Your task to perform on an android device: toggle notification dots Image 0: 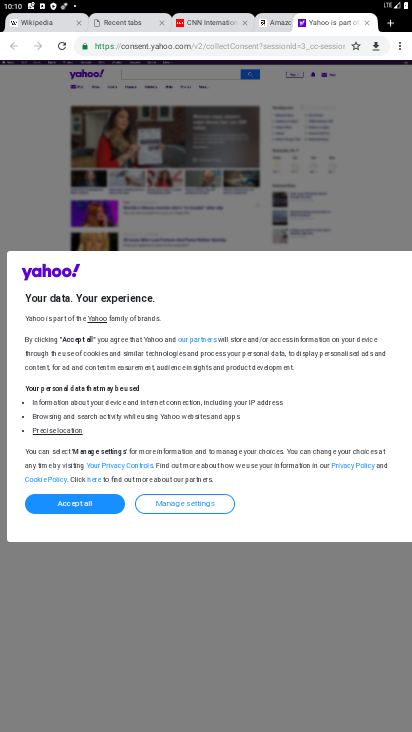
Step 0: press home button
Your task to perform on an android device: toggle notification dots Image 1: 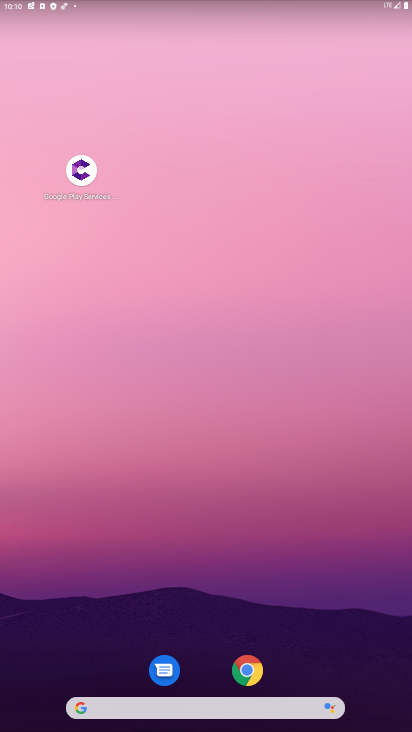
Step 1: drag from (180, 698) to (129, 50)
Your task to perform on an android device: toggle notification dots Image 2: 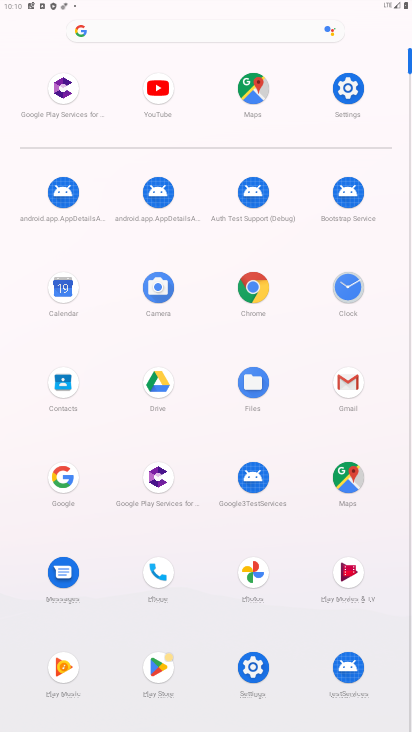
Step 2: click (359, 88)
Your task to perform on an android device: toggle notification dots Image 3: 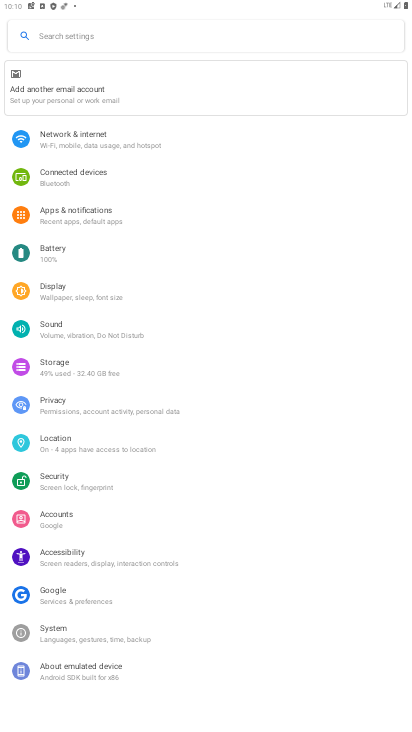
Step 3: click (137, 211)
Your task to perform on an android device: toggle notification dots Image 4: 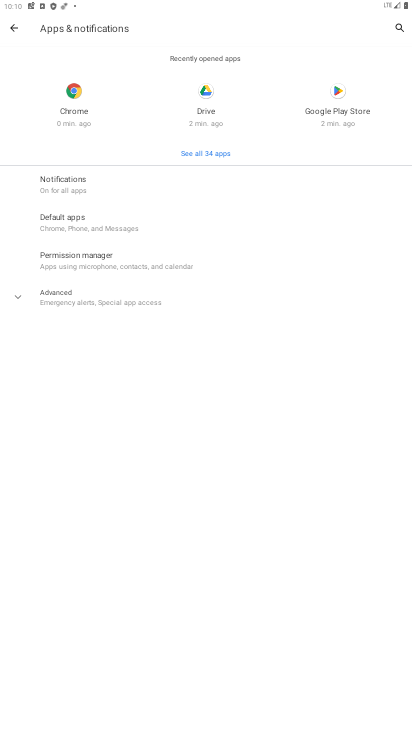
Step 4: click (152, 182)
Your task to perform on an android device: toggle notification dots Image 5: 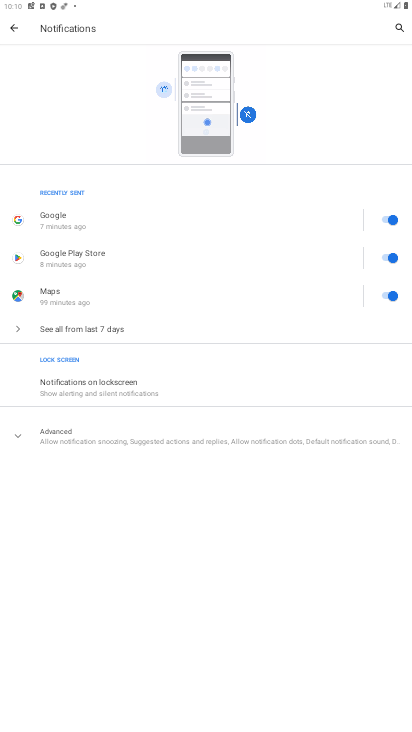
Step 5: click (189, 387)
Your task to perform on an android device: toggle notification dots Image 6: 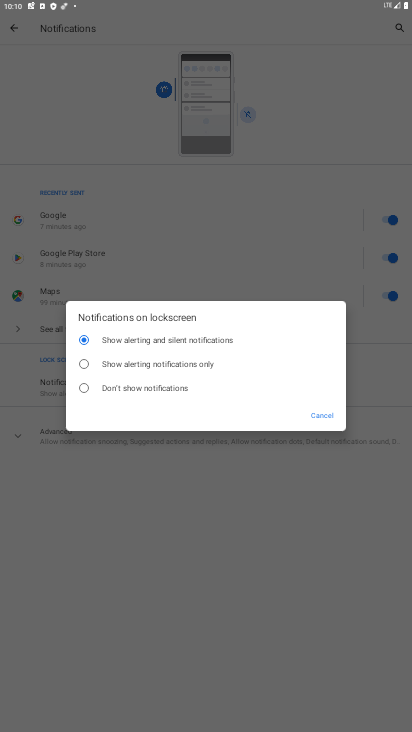
Step 6: click (367, 457)
Your task to perform on an android device: toggle notification dots Image 7: 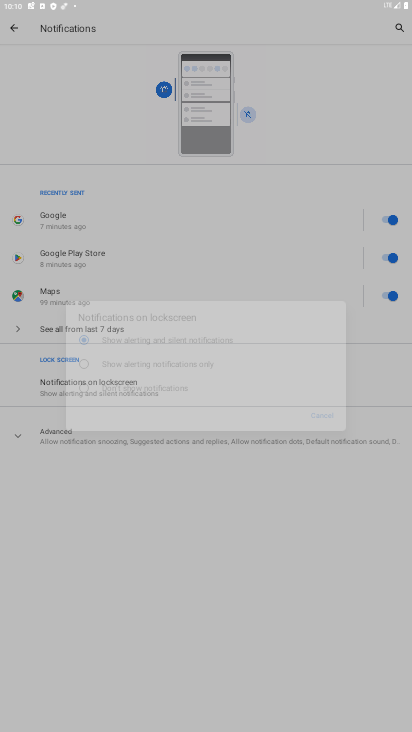
Step 7: click (362, 443)
Your task to perform on an android device: toggle notification dots Image 8: 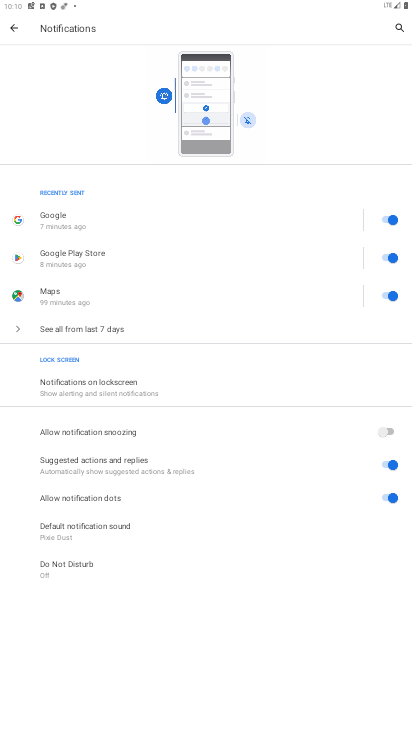
Step 8: click (394, 495)
Your task to perform on an android device: toggle notification dots Image 9: 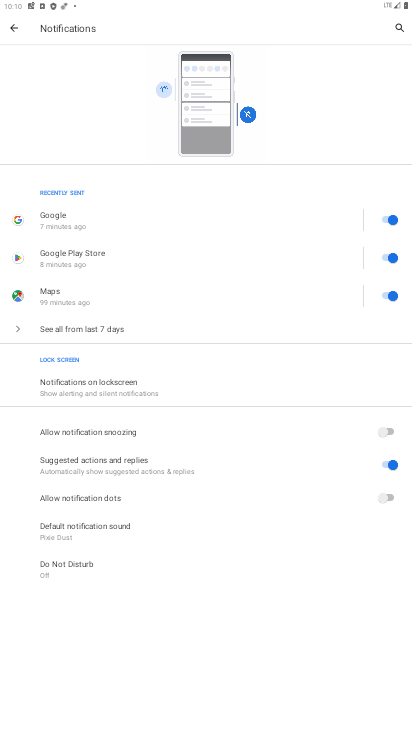
Step 9: task complete